Your task to perform on an android device: Go to accessibility settings Image 0: 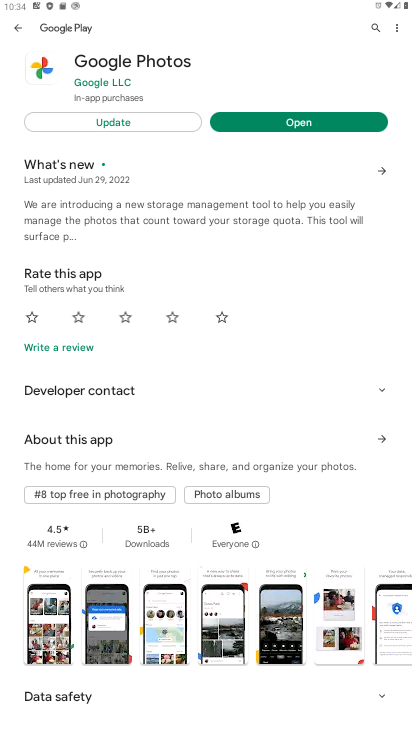
Step 0: press home button
Your task to perform on an android device: Go to accessibility settings Image 1: 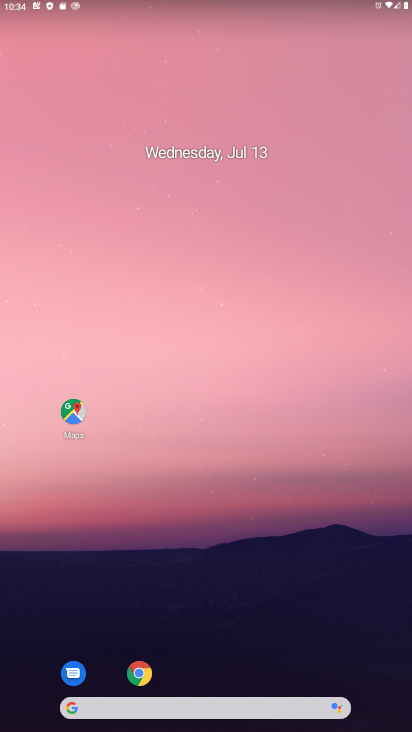
Step 1: drag from (191, 684) to (262, 62)
Your task to perform on an android device: Go to accessibility settings Image 2: 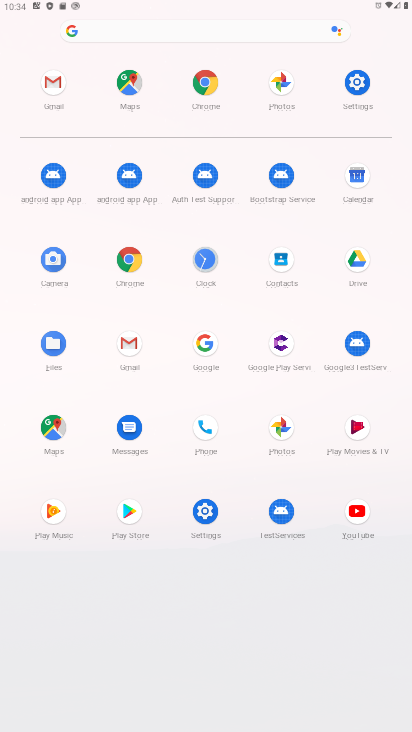
Step 2: click (346, 77)
Your task to perform on an android device: Go to accessibility settings Image 3: 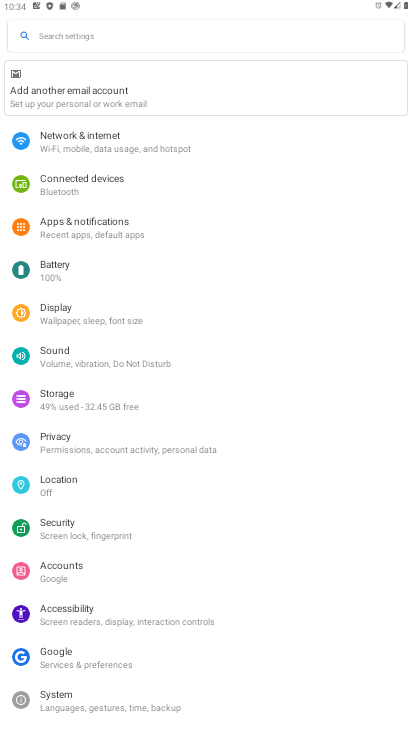
Step 3: click (128, 602)
Your task to perform on an android device: Go to accessibility settings Image 4: 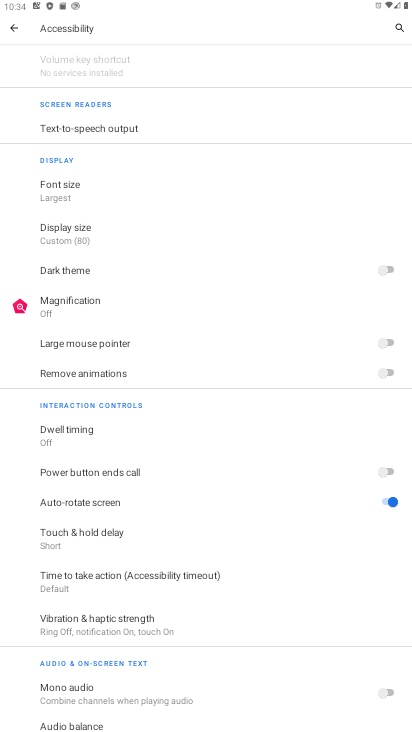
Step 4: task complete